Your task to perform on an android device: Set the phone to "Do not disturb". Image 0: 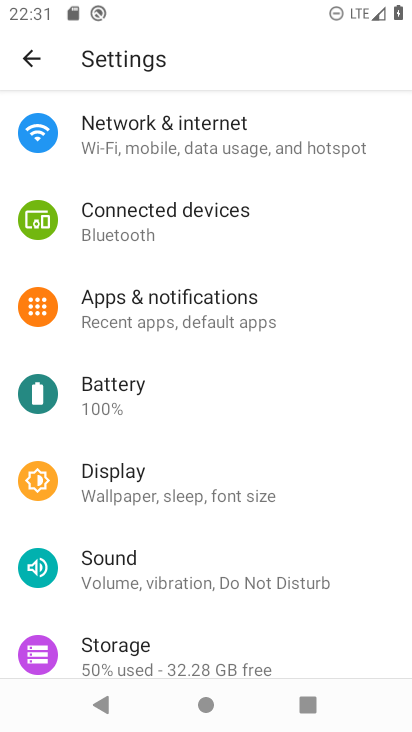
Step 0: click (113, 564)
Your task to perform on an android device: Set the phone to "Do not disturb". Image 1: 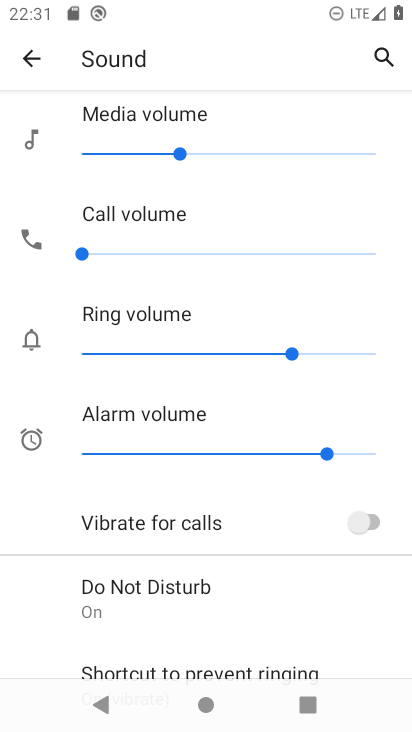
Step 1: task complete